Your task to perform on an android device: Search for vegetarian restaurants on Maps Image 0: 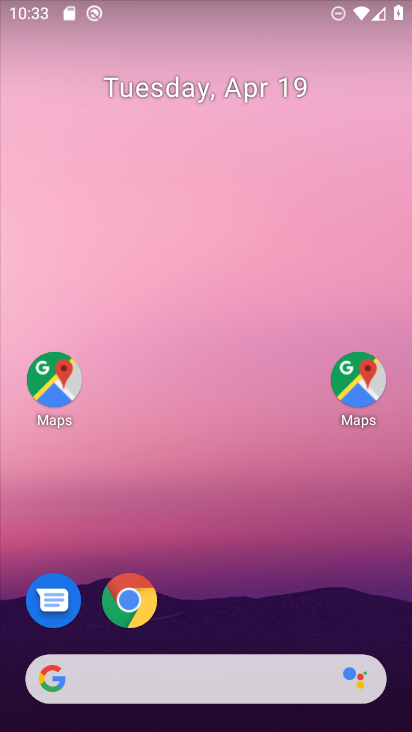
Step 0: drag from (290, 563) to (300, 150)
Your task to perform on an android device: Search for vegetarian restaurants on Maps Image 1: 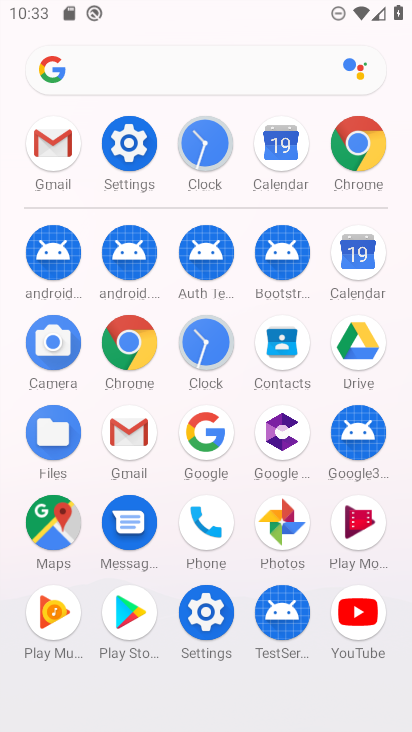
Step 1: click (43, 535)
Your task to perform on an android device: Search for vegetarian restaurants on Maps Image 2: 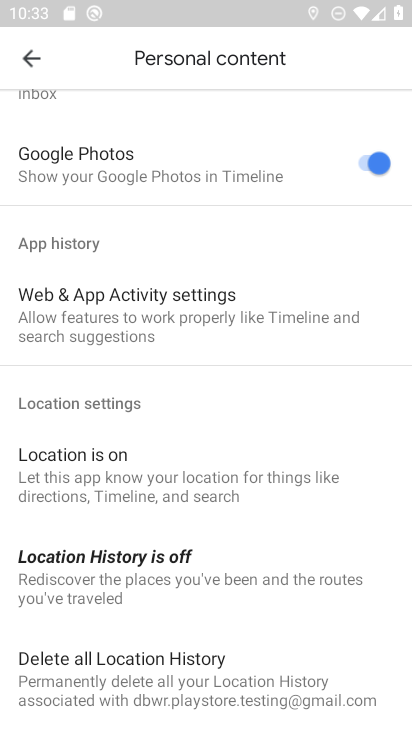
Step 2: press back button
Your task to perform on an android device: Search for vegetarian restaurants on Maps Image 3: 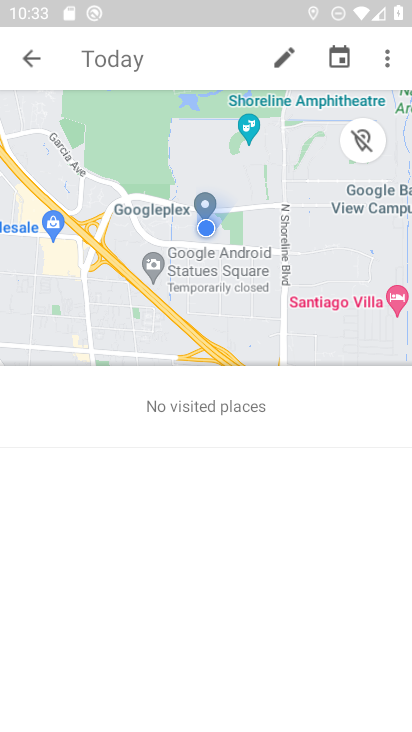
Step 3: press back button
Your task to perform on an android device: Search for vegetarian restaurants on Maps Image 4: 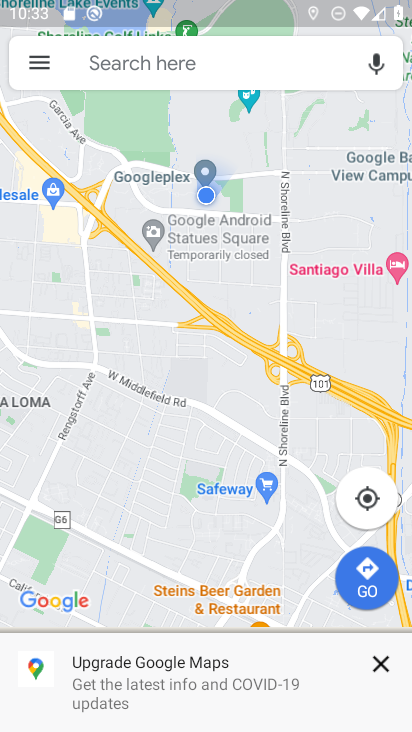
Step 4: click (390, 667)
Your task to perform on an android device: Search for vegetarian restaurants on Maps Image 5: 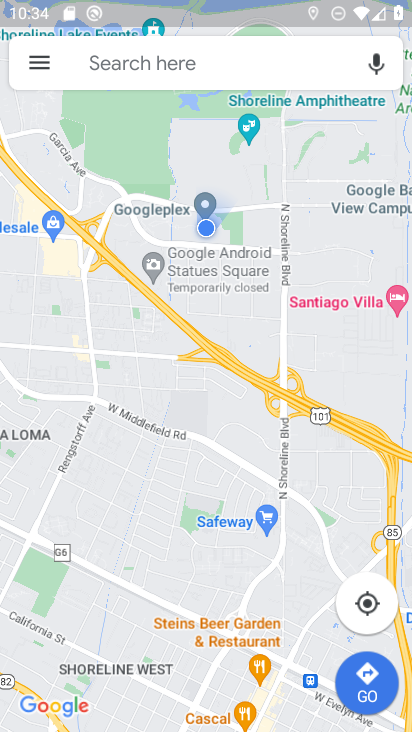
Step 5: click (228, 56)
Your task to perform on an android device: Search for vegetarian restaurants on Maps Image 6: 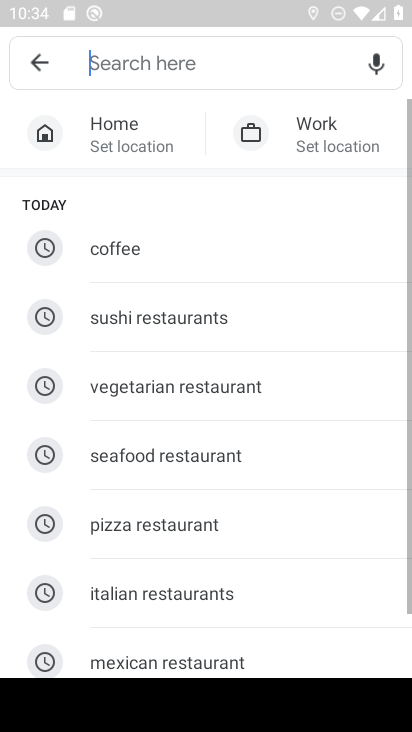
Step 6: click (131, 77)
Your task to perform on an android device: Search for vegetarian restaurants on Maps Image 7: 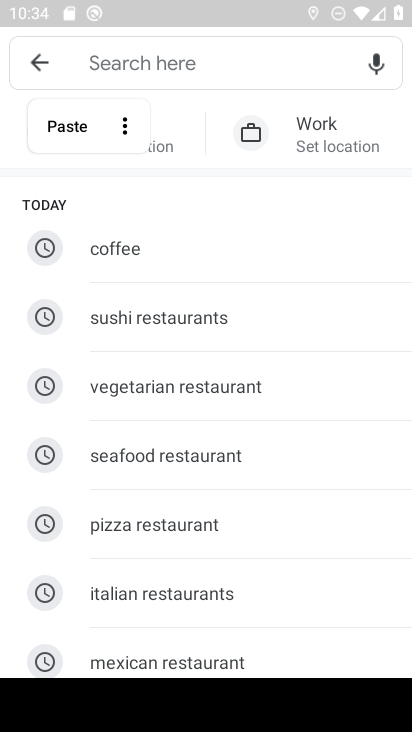
Step 7: type "vegetarian"
Your task to perform on an android device: Search for vegetarian restaurants on Maps Image 8: 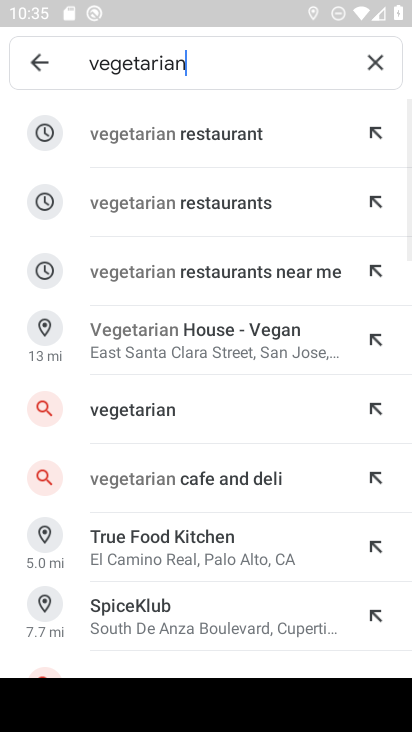
Step 8: click (300, 129)
Your task to perform on an android device: Search for vegetarian restaurants on Maps Image 9: 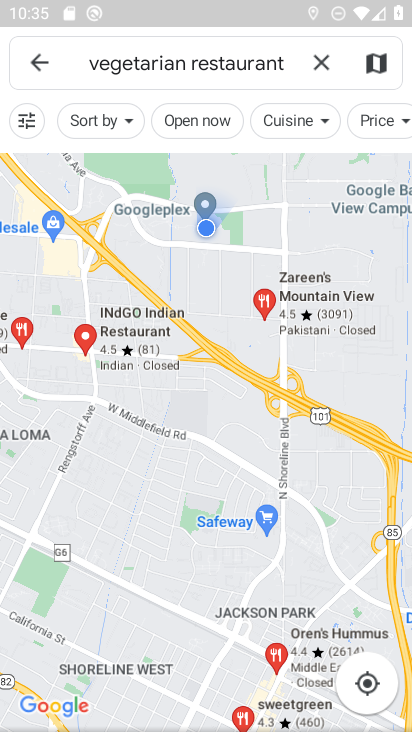
Step 9: task complete